Your task to perform on an android device: change alarm snooze length Image 0: 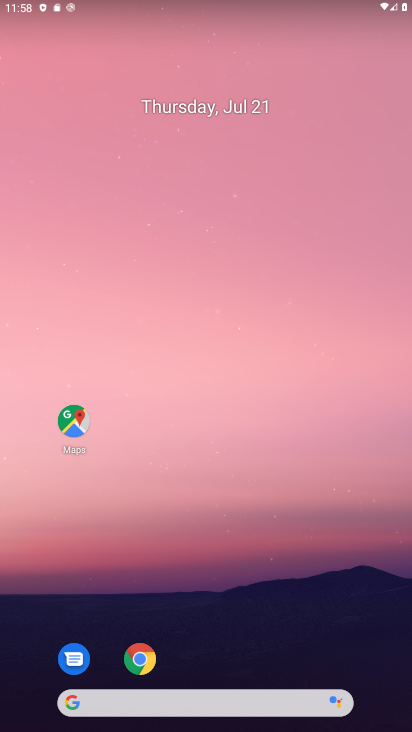
Step 0: drag from (285, 654) to (294, 136)
Your task to perform on an android device: change alarm snooze length Image 1: 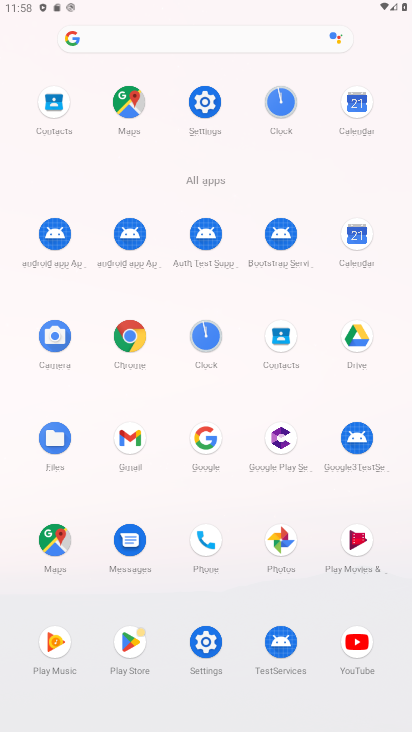
Step 1: click (273, 103)
Your task to perform on an android device: change alarm snooze length Image 2: 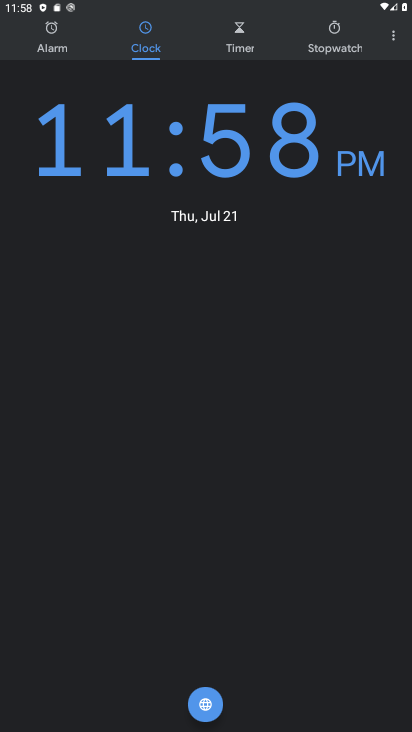
Step 2: click (63, 38)
Your task to perform on an android device: change alarm snooze length Image 3: 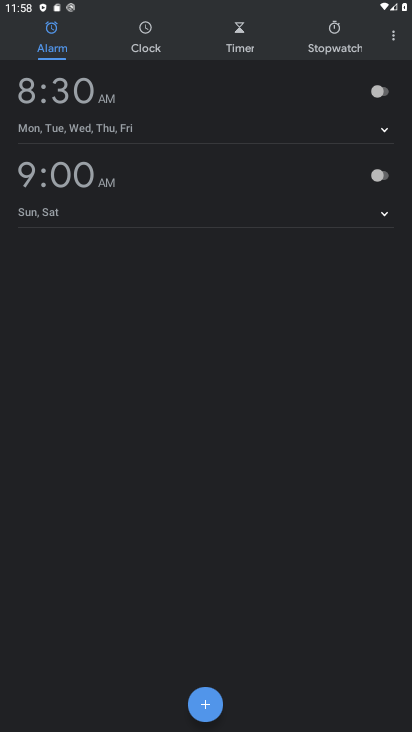
Step 3: click (391, 29)
Your task to perform on an android device: change alarm snooze length Image 4: 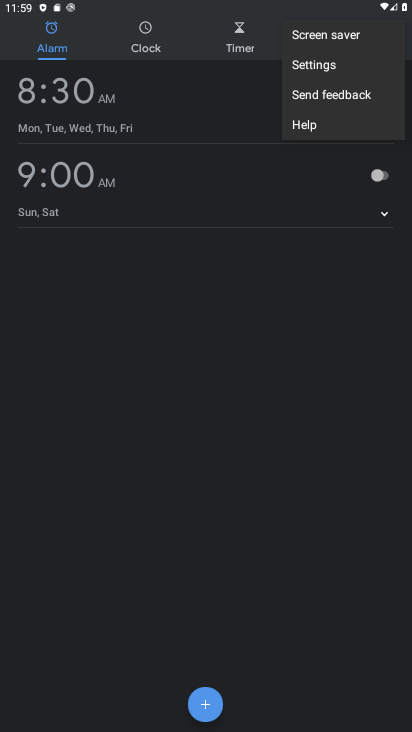
Step 4: task complete